Your task to perform on an android device: Search for Italian restaurants on Maps Image 0: 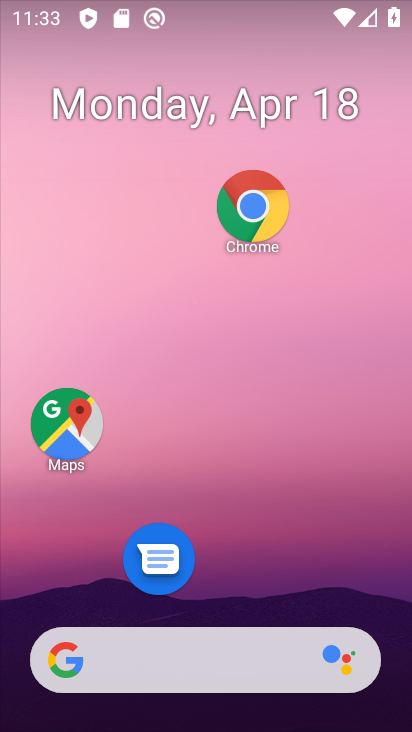
Step 0: drag from (263, 560) to (313, 60)
Your task to perform on an android device: Search for Italian restaurants on Maps Image 1: 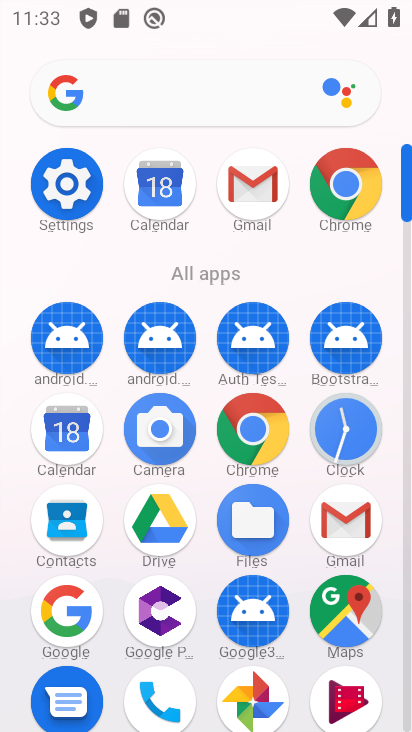
Step 1: click (334, 599)
Your task to perform on an android device: Search for Italian restaurants on Maps Image 2: 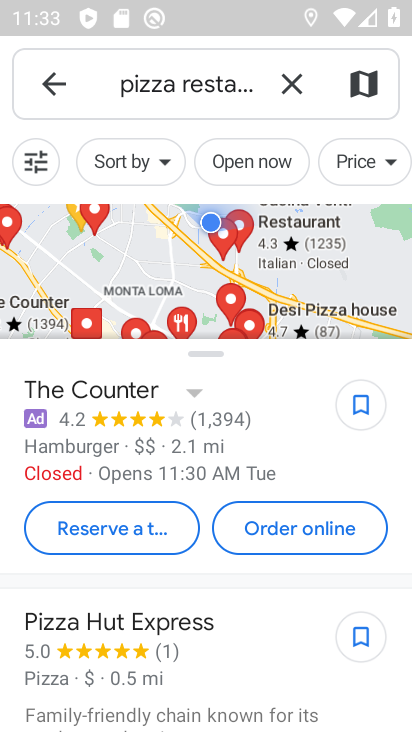
Step 2: click (299, 81)
Your task to perform on an android device: Search for Italian restaurants on Maps Image 3: 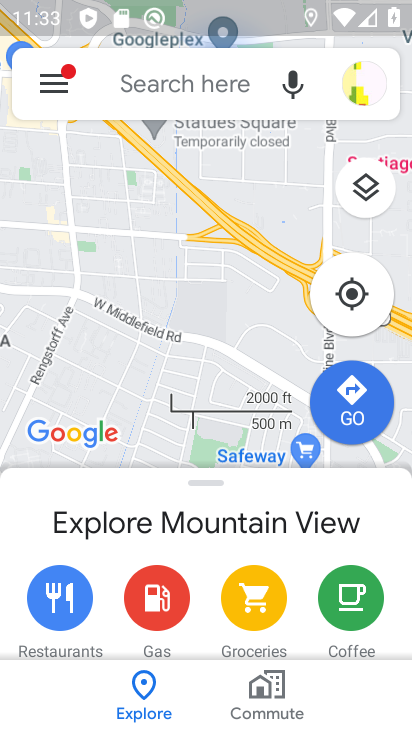
Step 3: click (268, 91)
Your task to perform on an android device: Search for Italian restaurants on Maps Image 4: 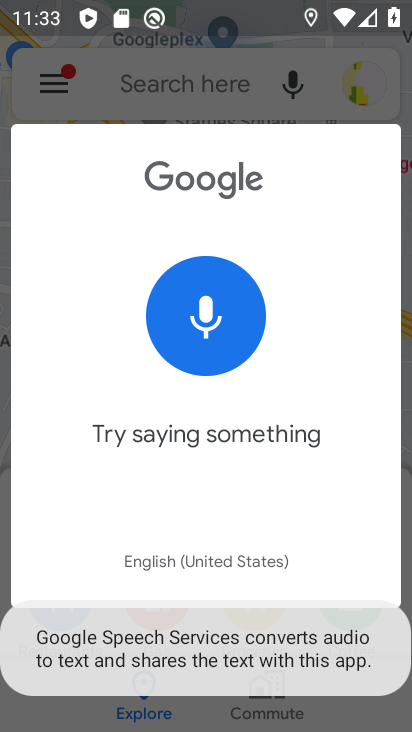
Step 4: drag from (268, 91) to (152, 91)
Your task to perform on an android device: Search for Italian restaurants on Maps Image 5: 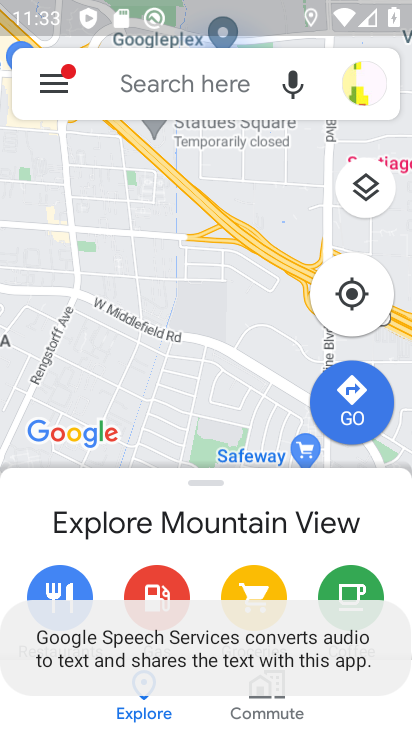
Step 5: click (194, 81)
Your task to perform on an android device: Search for Italian restaurants on Maps Image 6: 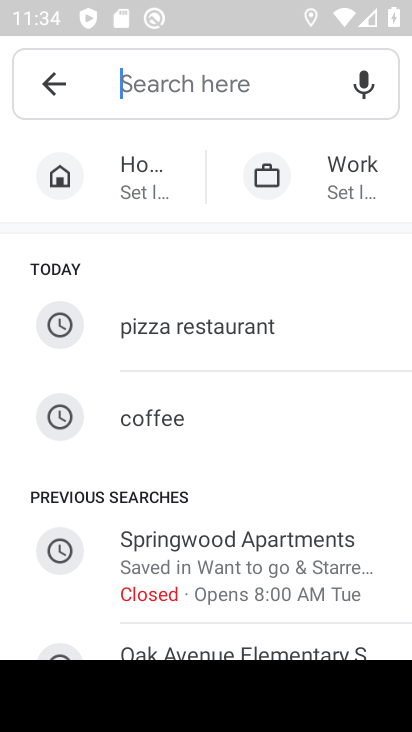
Step 6: type "italian restaurant"
Your task to perform on an android device: Search for Italian restaurants on Maps Image 7: 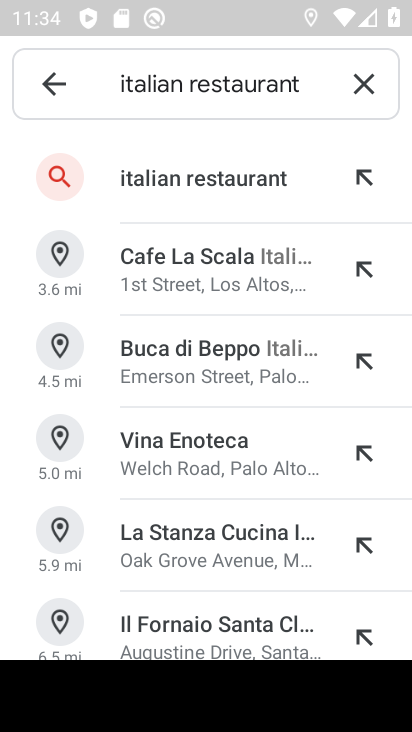
Step 7: click (178, 186)
Your task to perform on an android device: Search for Italian restaurants on Maps Image 8: 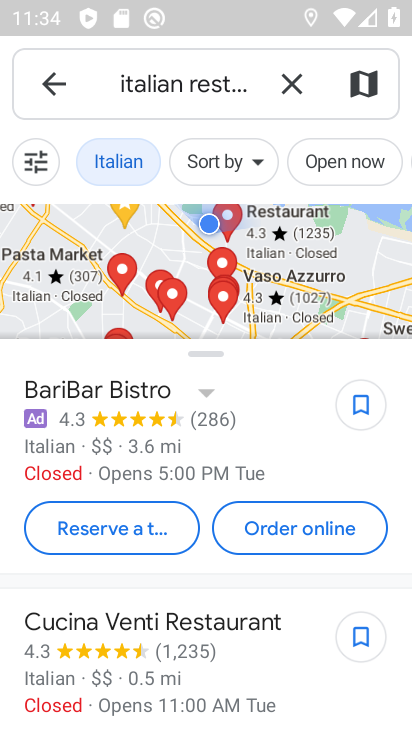
Step 8: task complete